Your task to perform on an android device: delete location history Image 0: 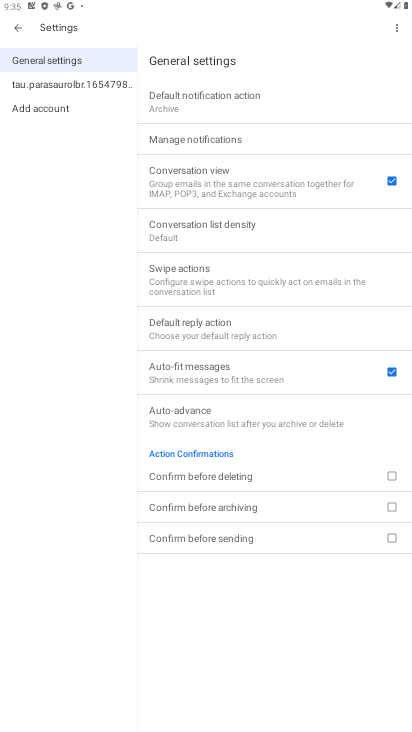
Step 0: press home button
Your task to perform on an android device: delete location history Image 1: 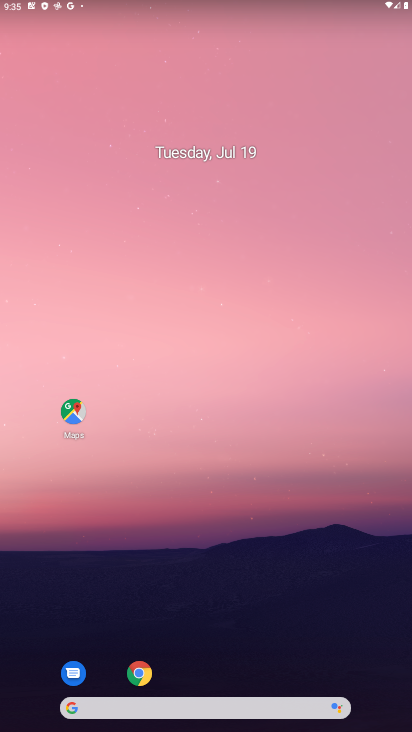
Step 1: drag from (228, 680) to (12, 86)
Your task to perform on an android device: delete location history Image 2: 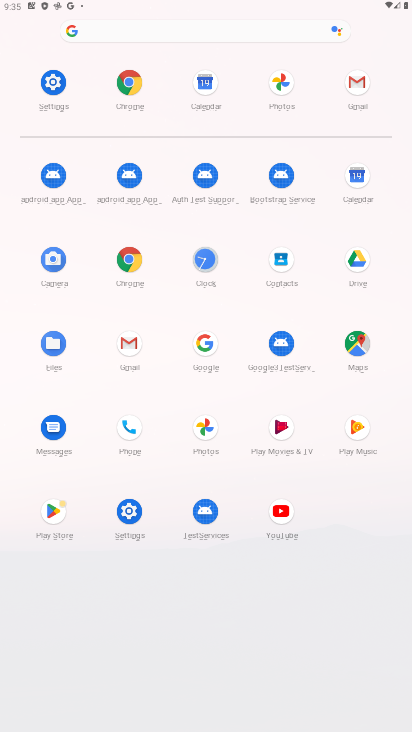
Step 2: click (75, 104)
Your task to perform on an android device: delete location history Image 3: 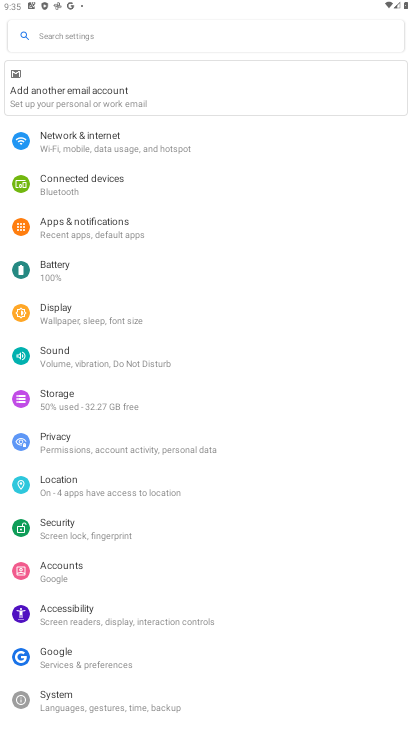
Step 3: click (185, 500)
Your task to perform on an android device: delete location history Image 4: 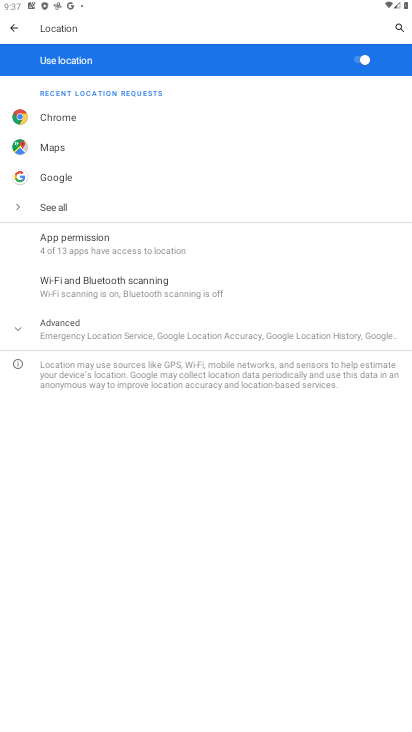
Step 4: task complete